Your task to perform on an android device: install app "Viber Messenger" Image 0: 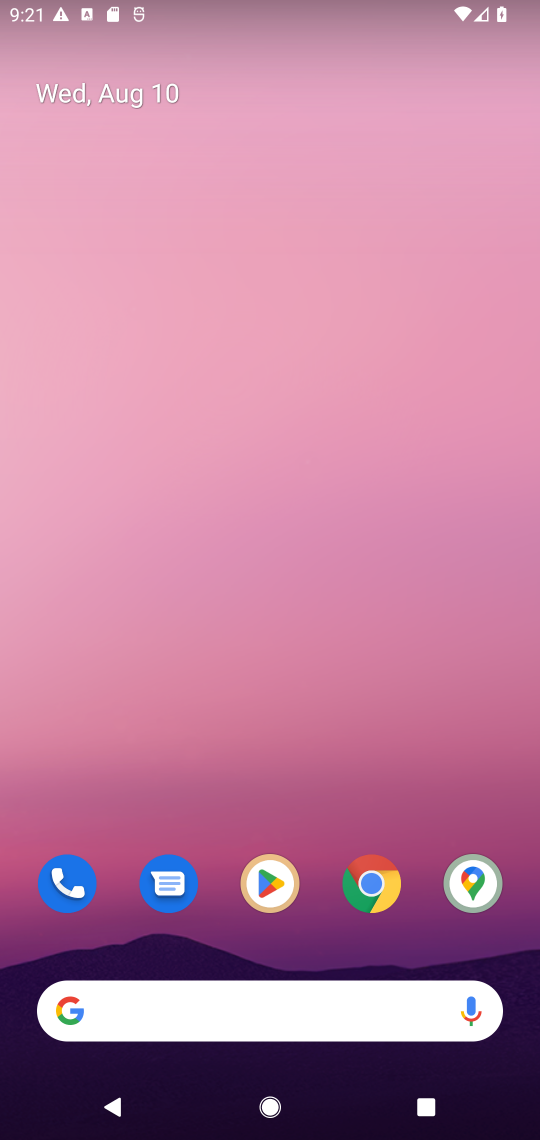
Step 0: drag from (329, 631) to (333, 162)
Your task to perform on an android device: install app "Viber Messenger" Image 1: 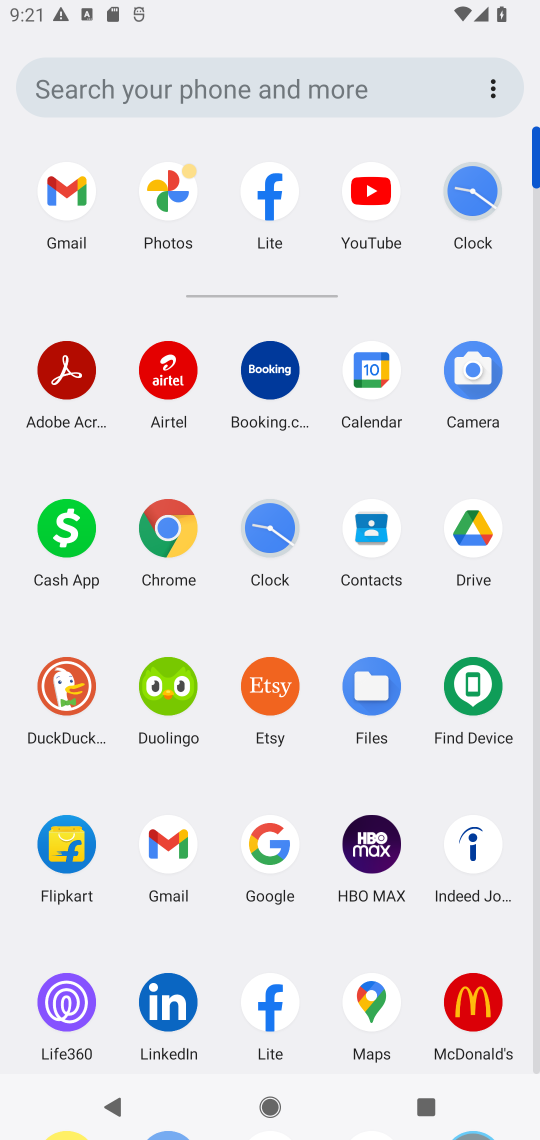
Step 1: drag from (325, 911) to (320, 366)
Your task to perform on an android device: install app "Viber Messenger" Image 2: 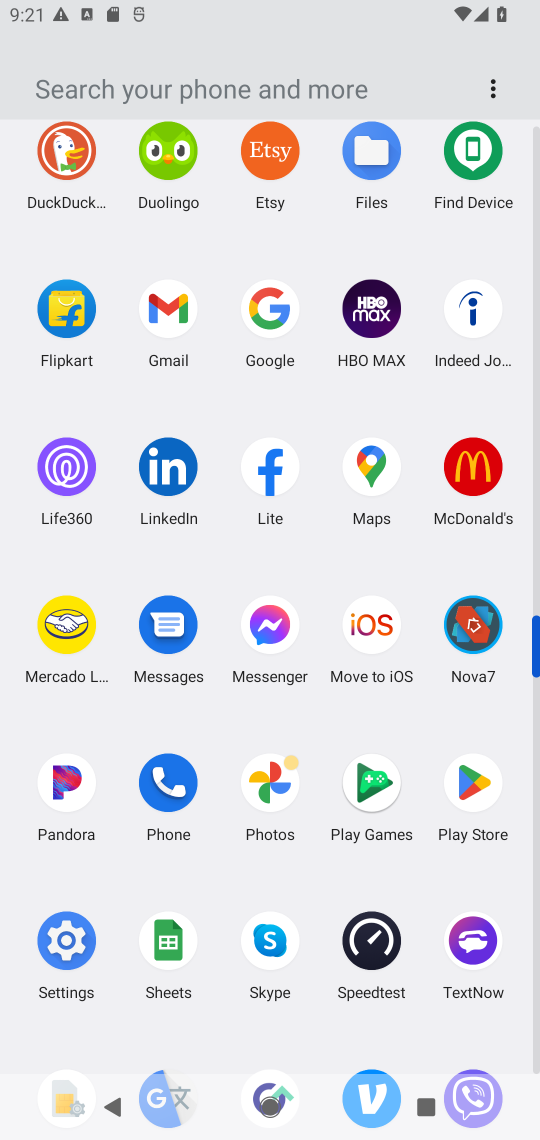
Step 2: drag from (321, 885) to (326, 275)
Your task to perform on an android device: install app "Viber Messenger" Image 3: 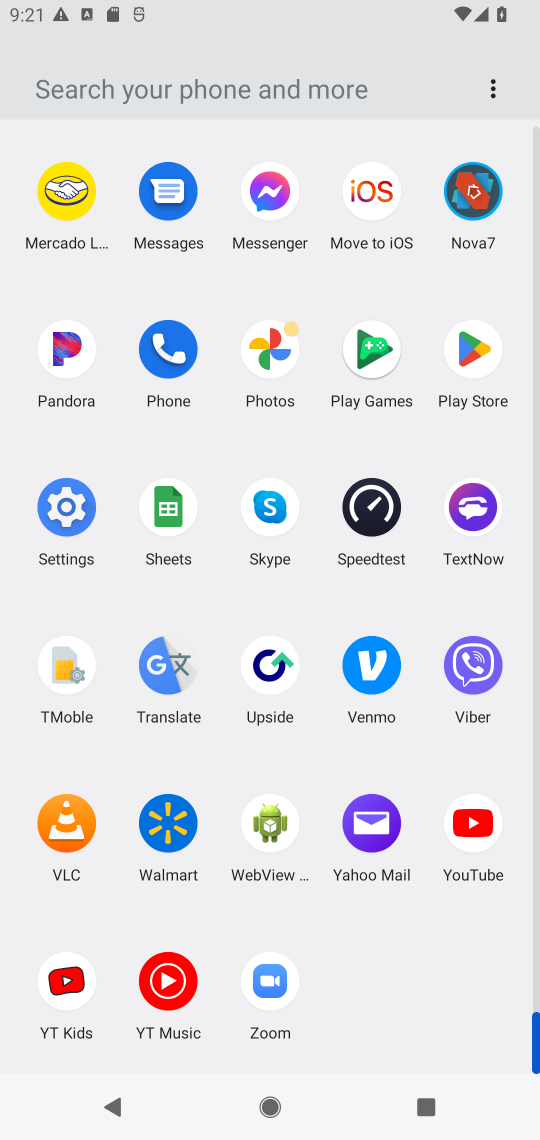
Step 3: click (474, 355)
Your task to perform on an android device: install app "Viber Messenger" Image 4: 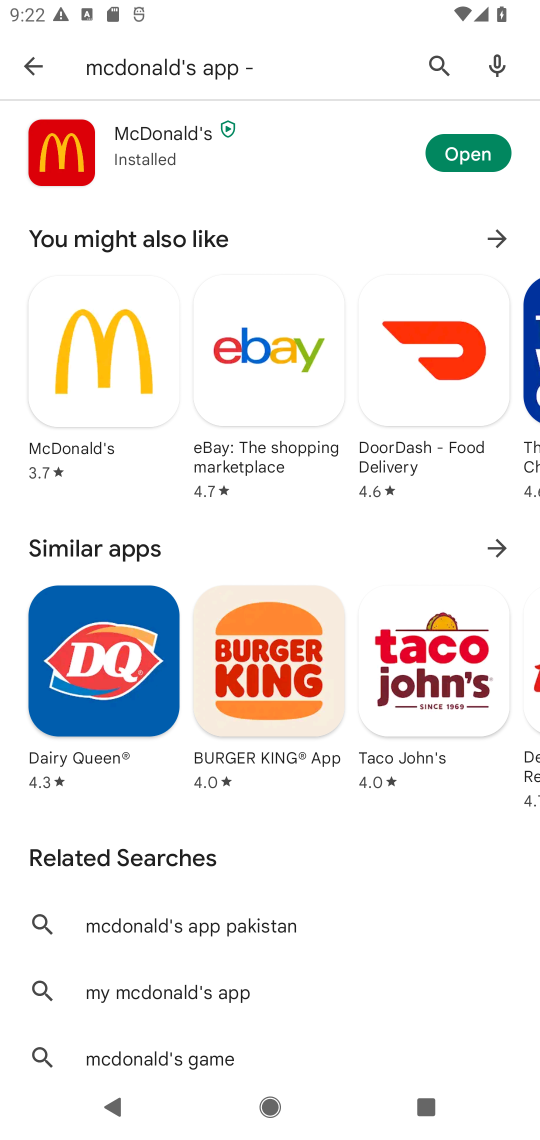
Step 4: click (438, 60)
Your task to perform on an android device: install app "Viber Messenger" Image 5: 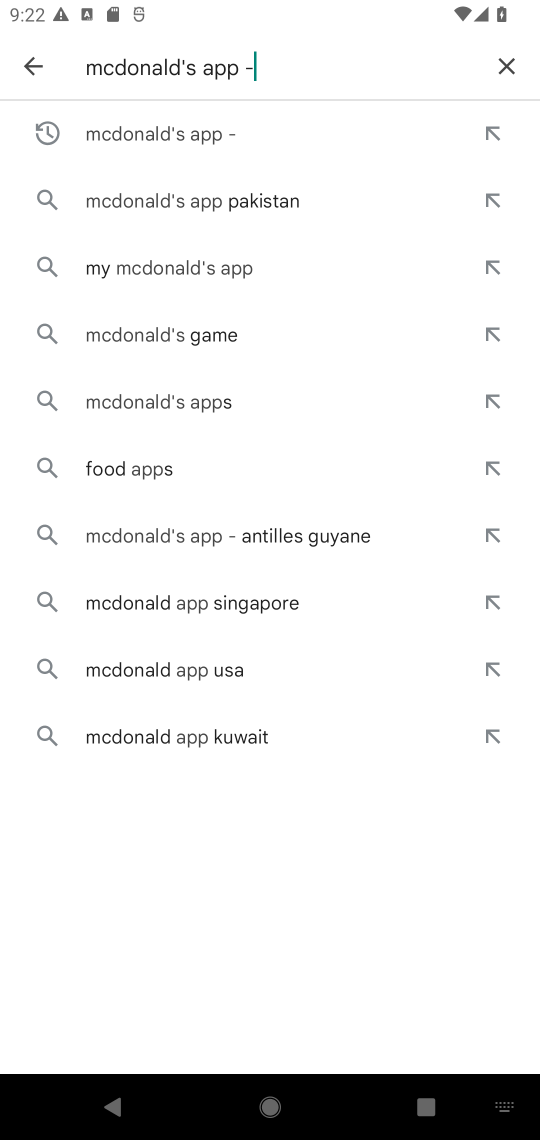
Step 5: click (510, 68)
Your task to perform on an android device: install app "Viber Messenger" Image 6: 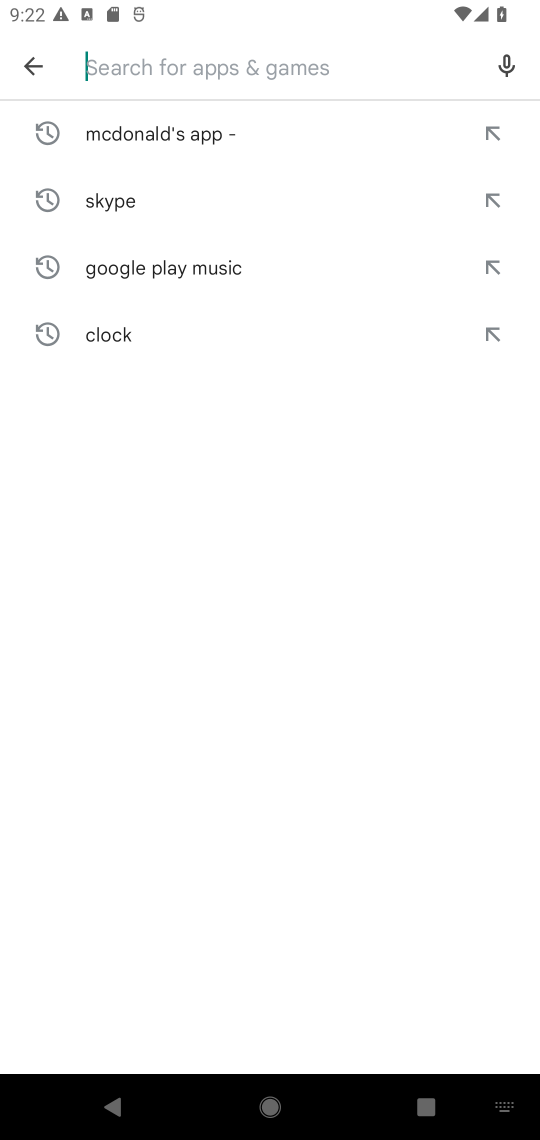
Step 6: type "Viber Messenge"
Your task to perform on an android device: install app "Viber Messenger" Image 7: 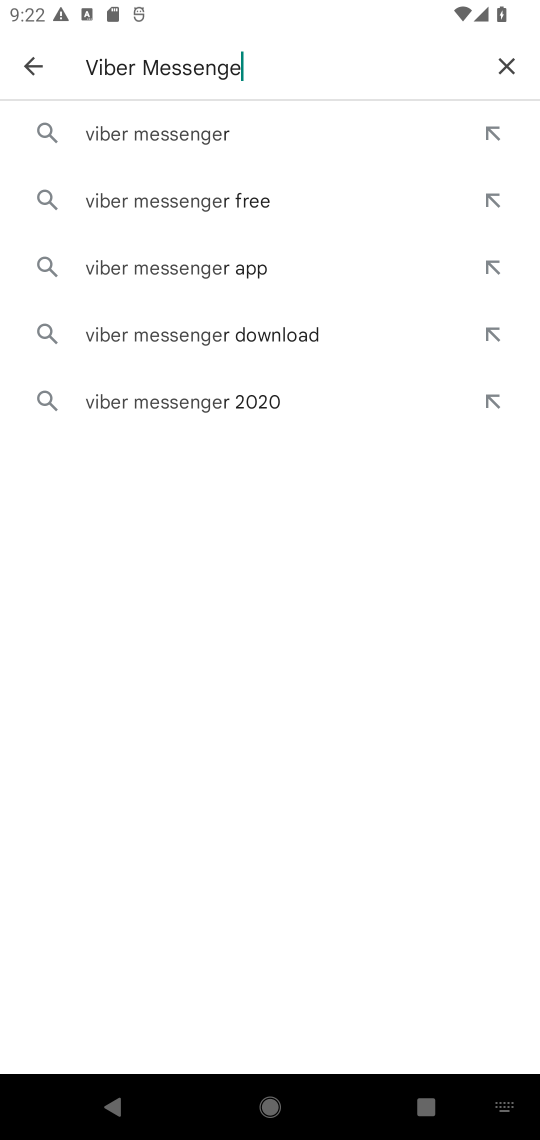
Step 7: click (166, 132)
Your task to perform on an android device: install app "Viber Messenger" Image 8: 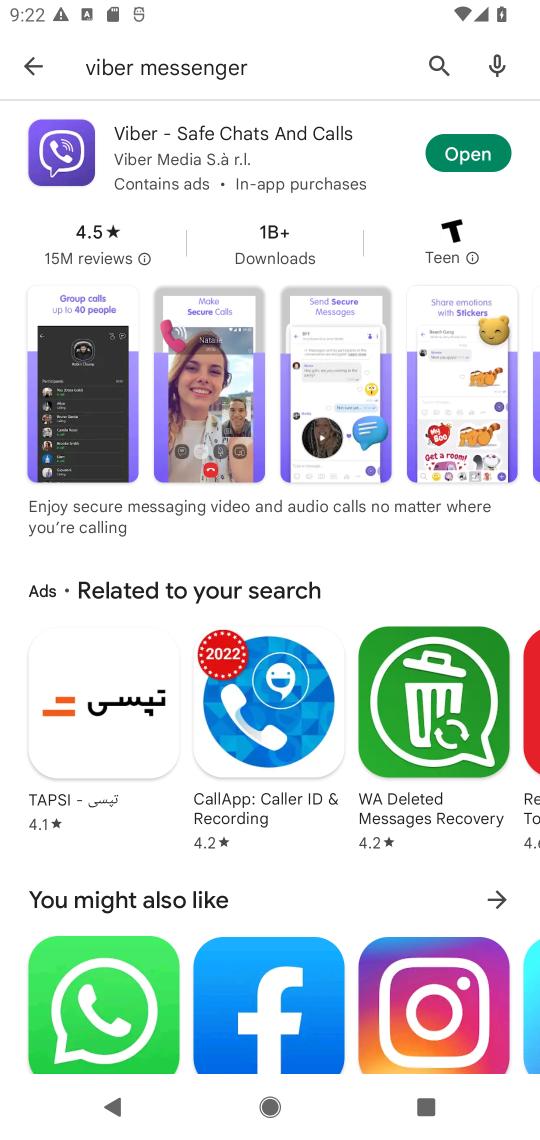
Step 8: click (274, 137)
Your task to perform on an android device: install app "Viber Messenger" Image 9: 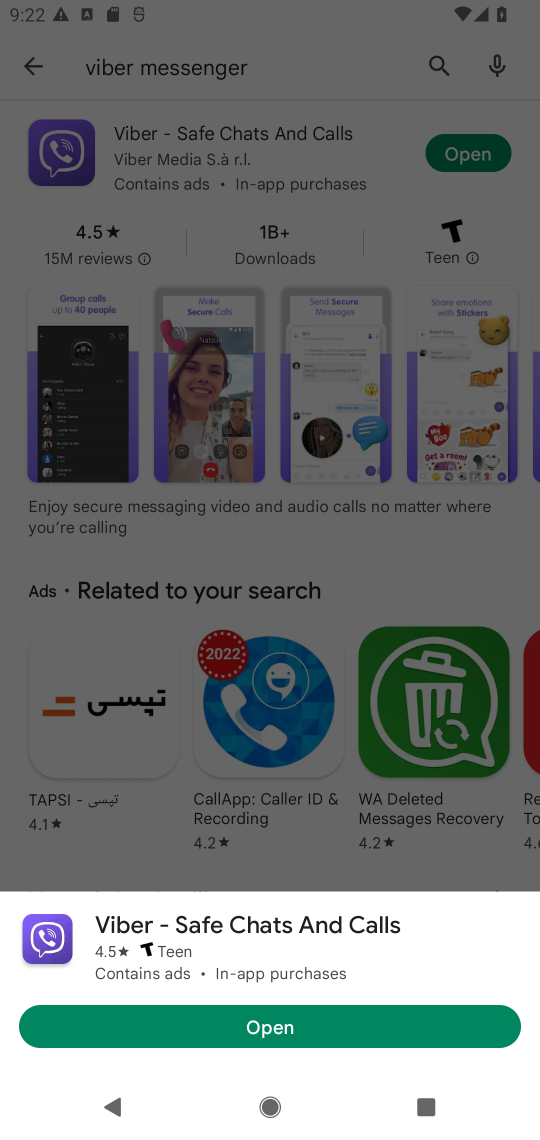
Step 9: task complete